Your task to perform on an android device: Go to battery settings Image 0: 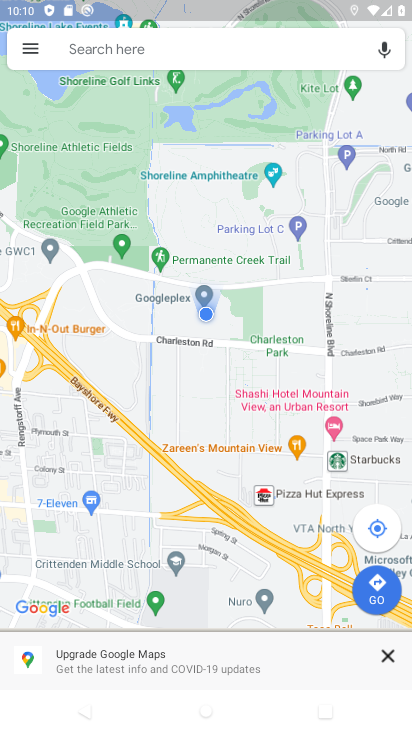
Step 0: press home button
Your task to perform on an android device: Go to battery settings Image 1: 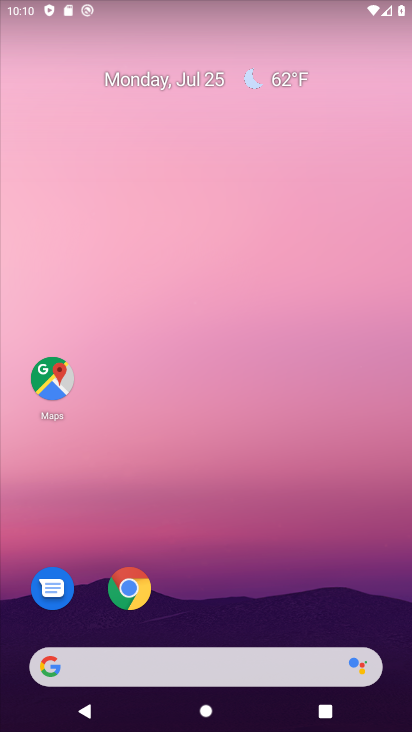
Step 1: drag from (212, 549) to (29, 234)
Your task to perform on an android device: Go to battery settings Image 2: 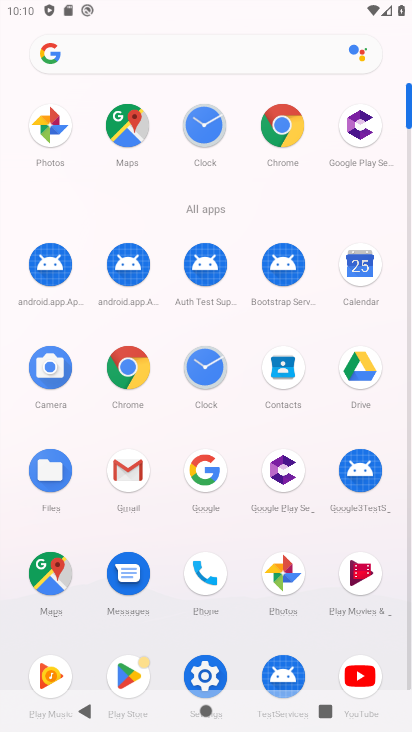
Step 2: click (210, 663)
Your task to perform on an android device: Go to battery settings Image 3: 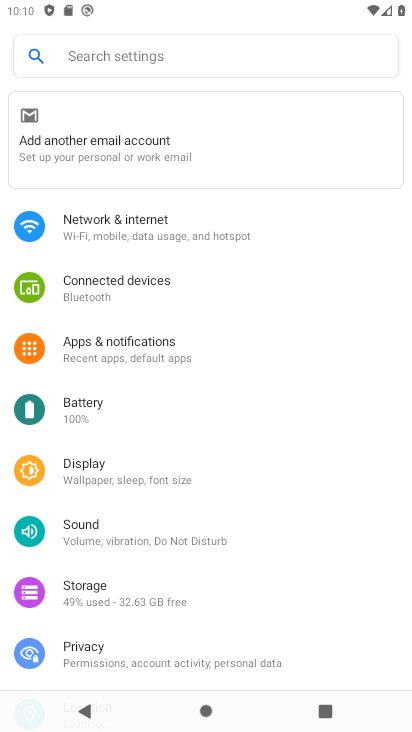
Step 3: click (132, 415)
Your task to perform on an android device: Go to battery settings Image 4: 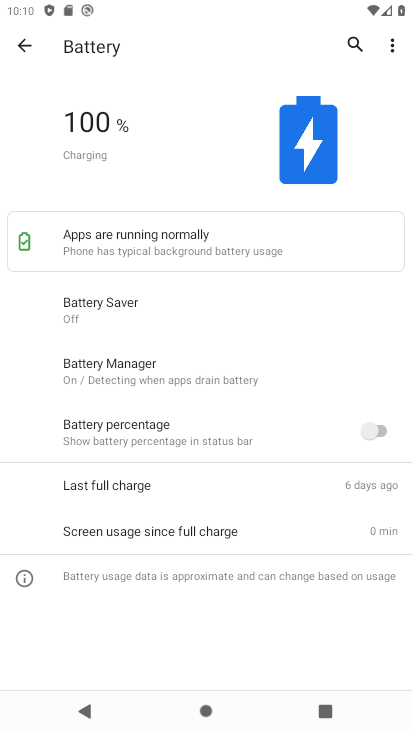
Step 4: task complete